Your task to perform on an android device: Go to settings Image 0: 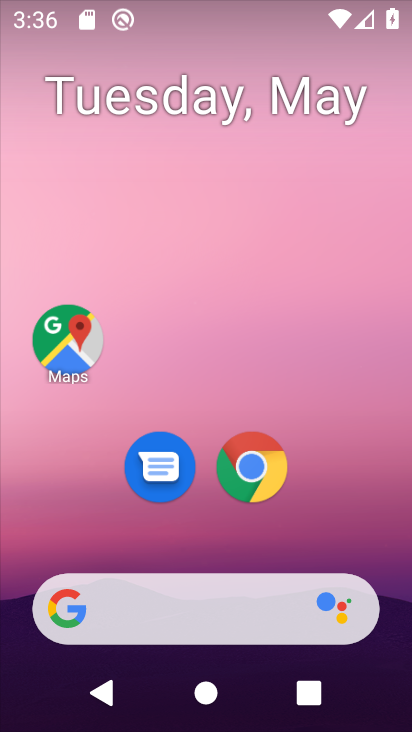
Step 0: drag from (321, 519) to (199, 15)
Your task to perform on an android device: Go to settings Image 1: 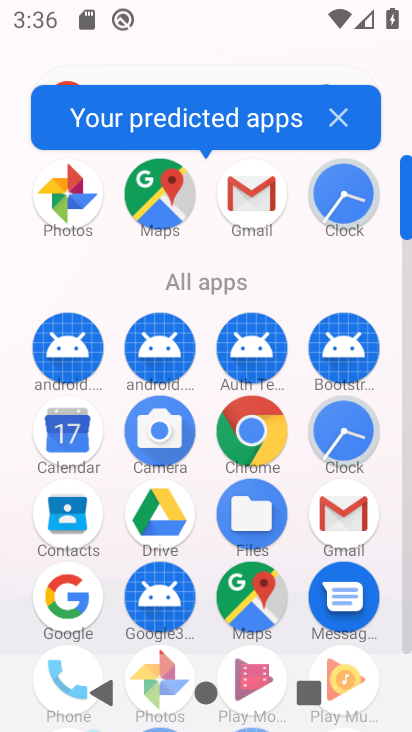
Step 1: drag from (244, 640) to (254, 373)
Your task to perform on an android device: Go to settings Image 2: 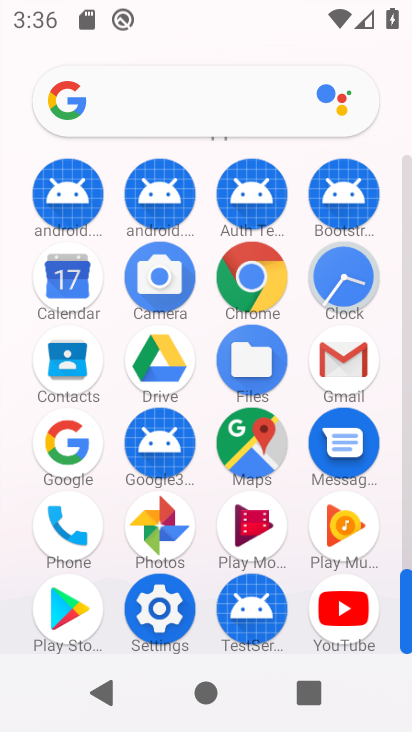
Step 2: click (161, 604)
Your task to perform on an android device: Go to settings Image 3: 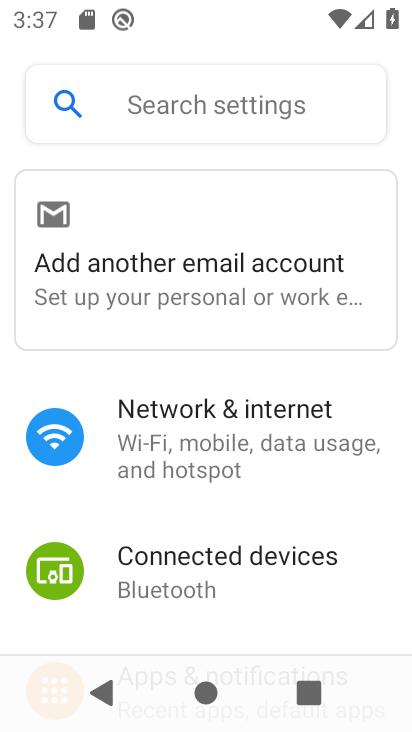
Step 3: task complete